Your task to perform on an android device: open sync settings in chrome Image 0: 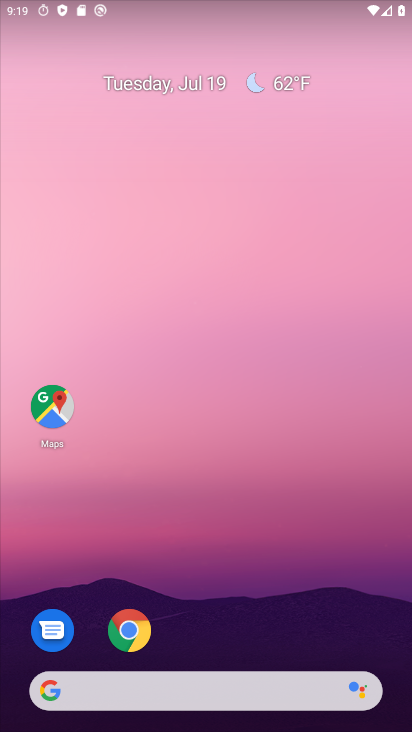
Step 0: click (128, 637)
Your task to perform on an android device: open sync settings in chrome Image 1: 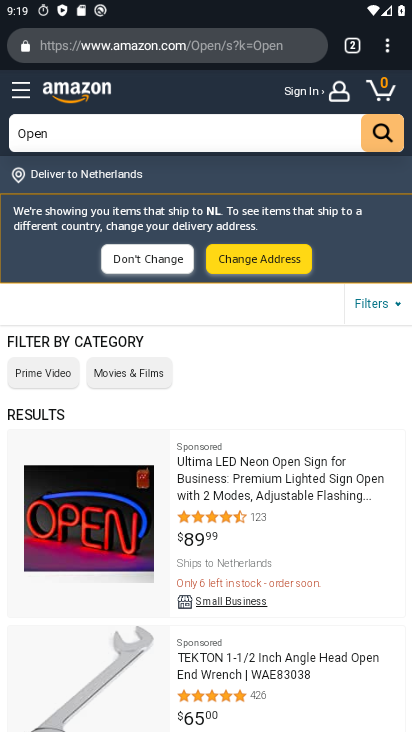
Step 1: click (381, 48)
Your task to perform on an android device: open sync settings in chrome Image 2: 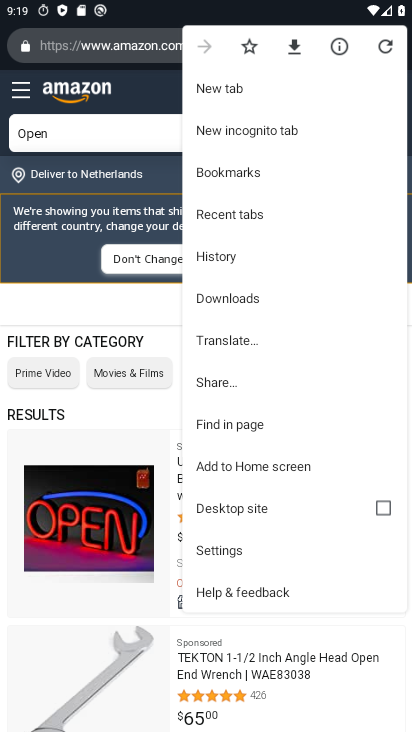
Step 2: click (218, 551)
Your task to perform on an android device: open sync settings in chrome Image 3: 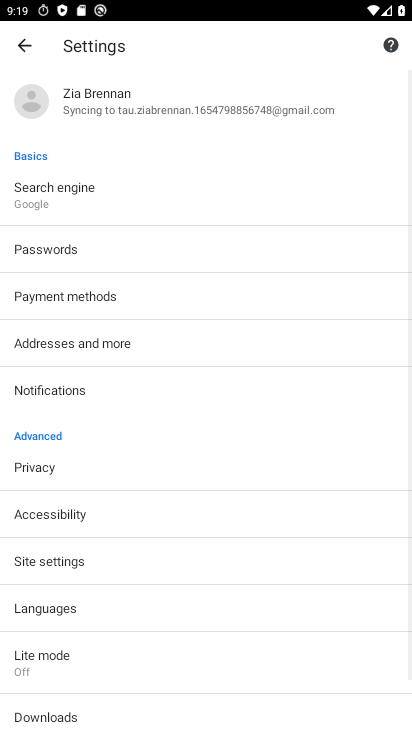
Step 3: click (75, 104)
Your task to perform on an android device: open sync settings in chrome Image 4: 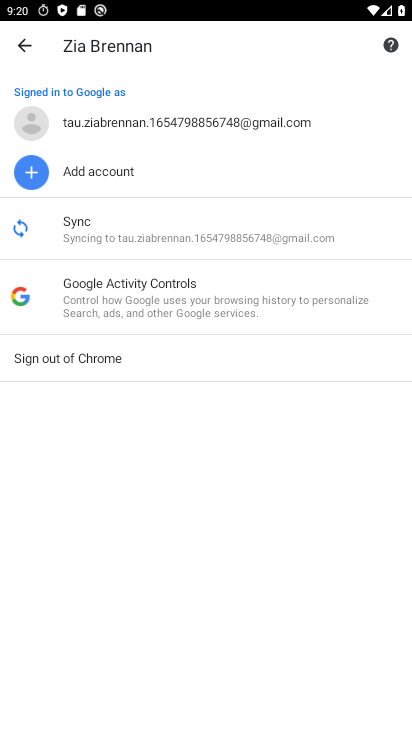
Step 4: click (105, 223)
Your task to perform on an android device: open sync settings in chrome Image 5: 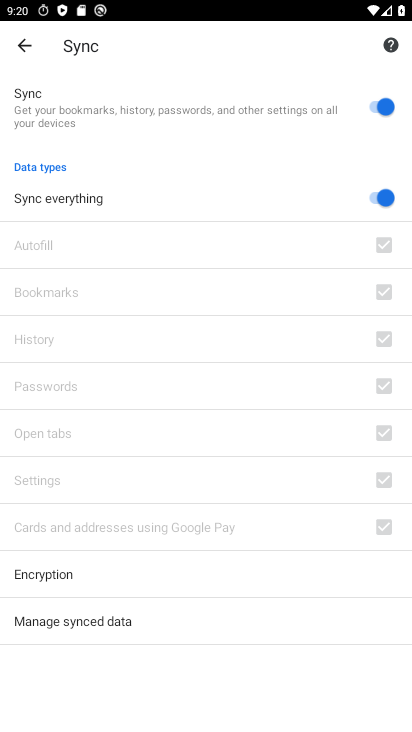
Step 5: task complete